Your task to perform on an android device: toggle airplane mode Image 0: 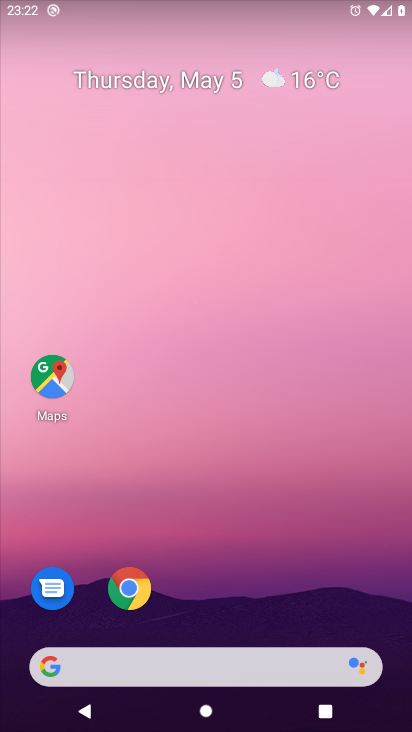
Step 0: drag from (247, 573) to (239, 151)
Your task to perform on an android device: toggle airplane mode Image 1: 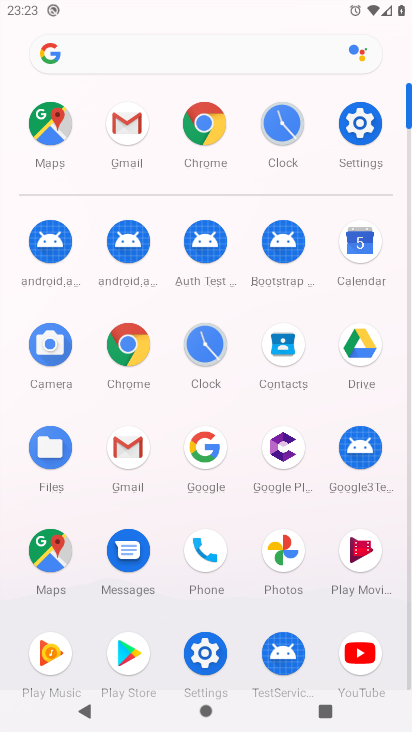
Step 1: click (371, 133)
Your task to perform on an android device: toggle airplane mode Image 2: 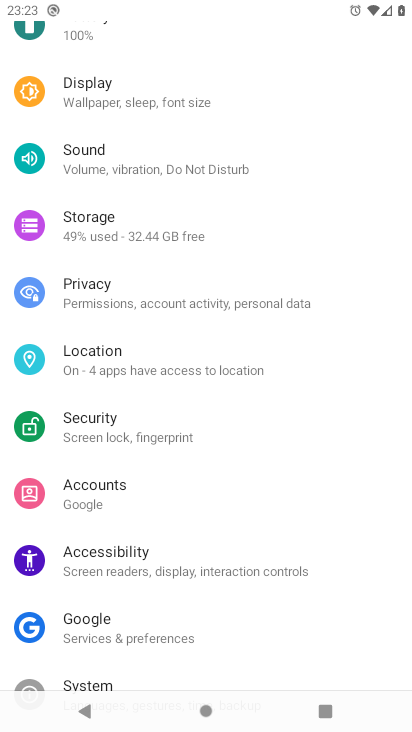
Step 2: drag from (255, 86) to (131, 560)
Your task to perform on an android device: toggle airplane mode Image 3: 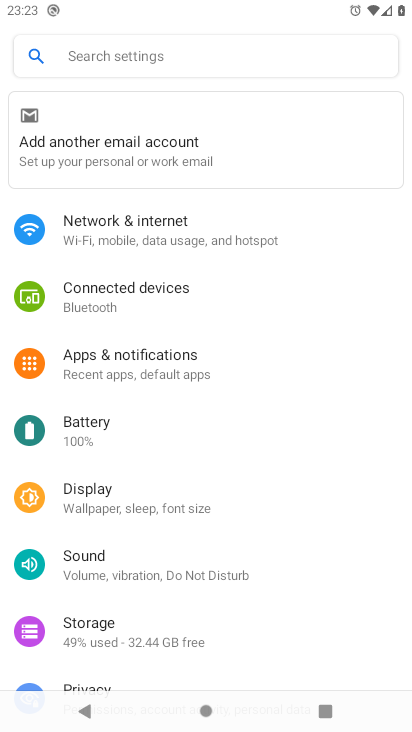
Step 3: click (190, 223)
Your task to perform on an android device: toggle airplane mode Image 4: 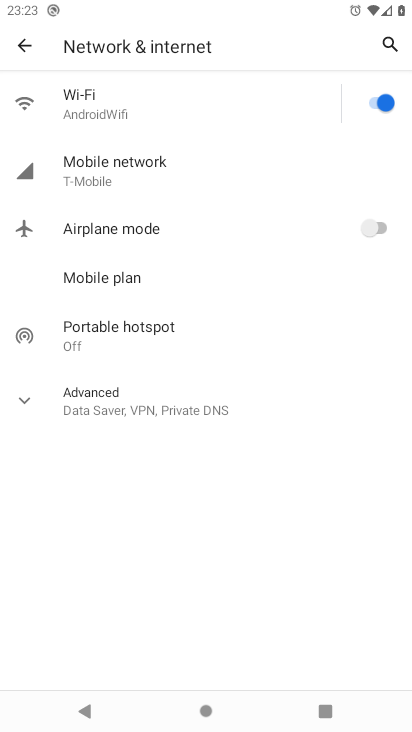
Step 4: click (379, 227)
Your task to perform on an android device: toggle airplane mode Image 5: 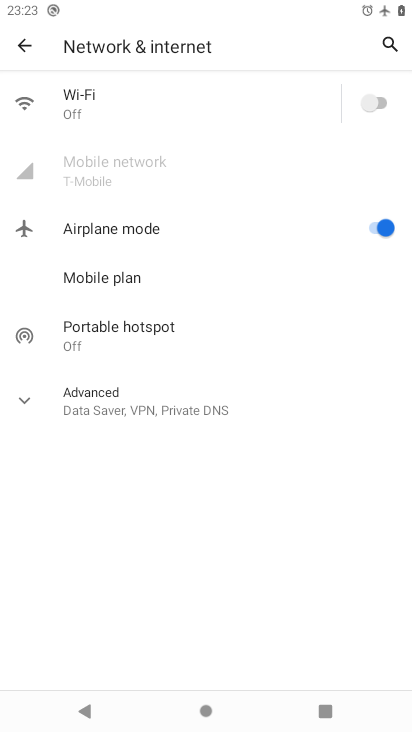
Step 5: task complete